Your task to perform on an android device: turn off smart reply in the gmail app Image 0: 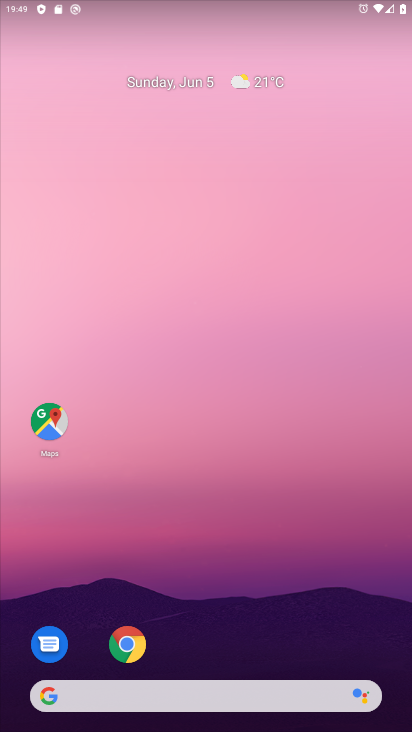
Step 0: drag from (74, 569) to (315, 174)
Your task to perform on an android device: turn off smart reply in the gmail app Image 1: 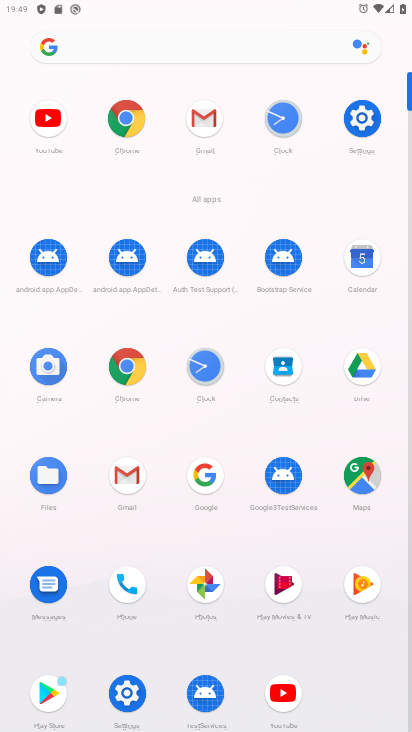
Step 1: click (198, 134)
Your task to perform on an android device: turn off smart reply in the gmail app Image 2: 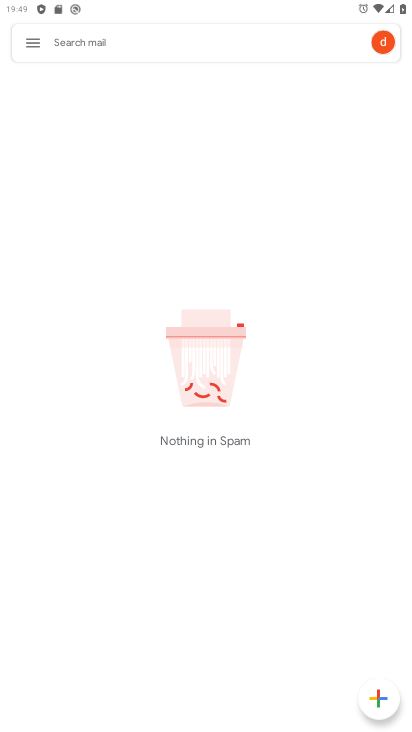
Step 2: click (30, 43)
Your task to perform on an android device: turn off smart reply in the gmail app Image 3: 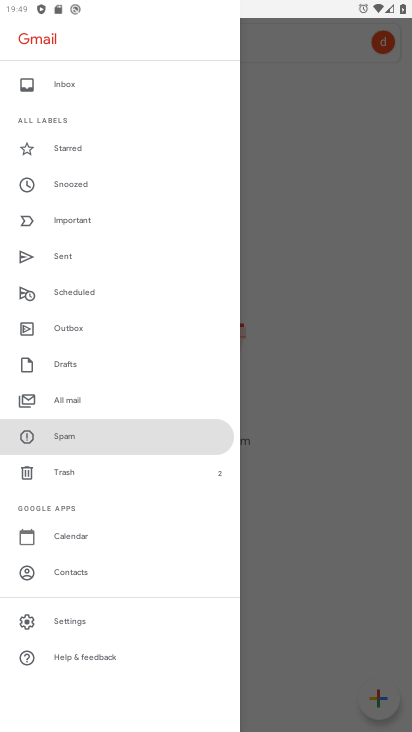
Step 3: click (48, 614)
Your task to perform on an android device: turn off smart reply in the gmail app Image 4: 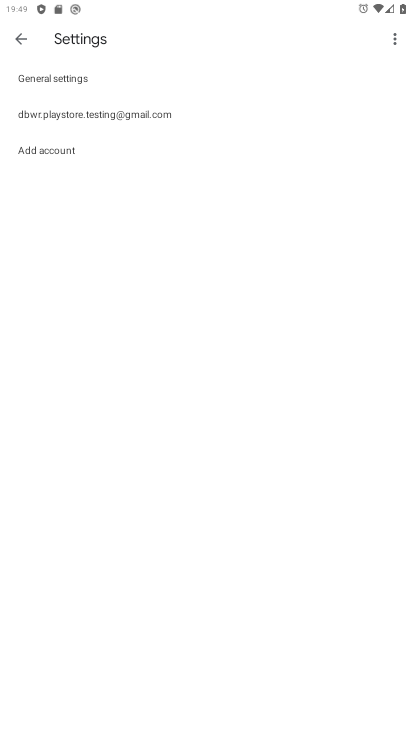
Step 4: click (76, 118)
Your task to perform on an android device: turn off smart reply in the gmail app Image 5: 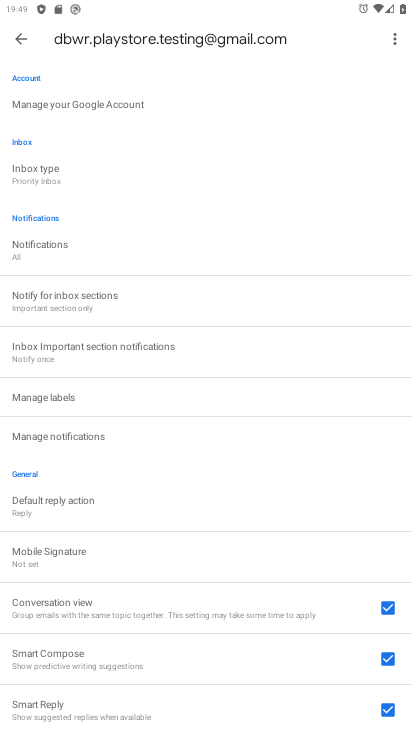
Step 5: click (383, 707)
Your task to perform on an android device: turn off smart reply in the gmail app Image 6: 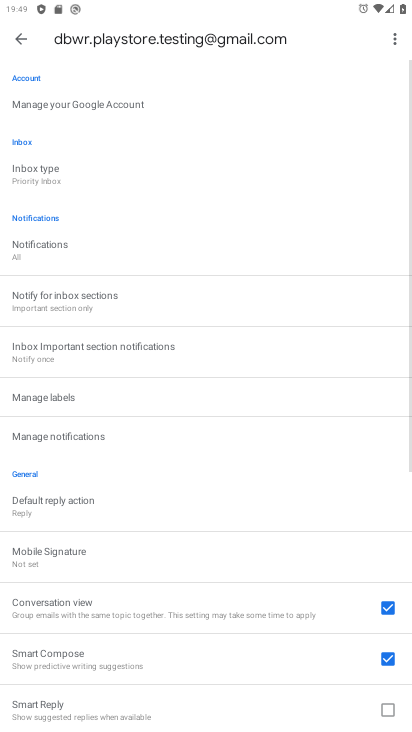
Step 6: task complete